Your task to perform on an android device: What's the weather going to be this weekend? Image 0: 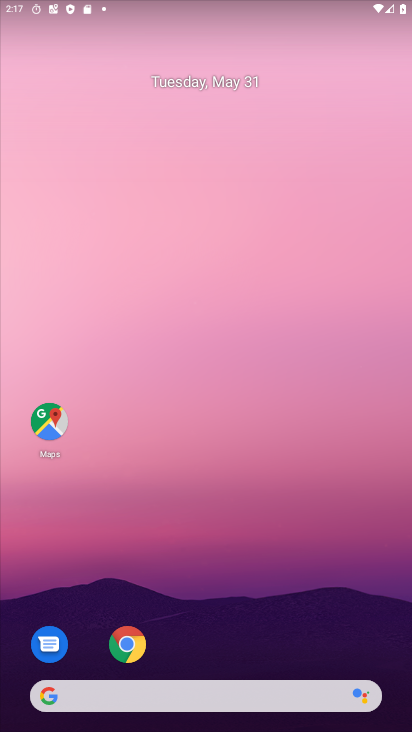
Step 0: drag from (0, 228) to (393, 247)
Your task to perform on an android device: What's the weather going to be this weekend? Image 1: 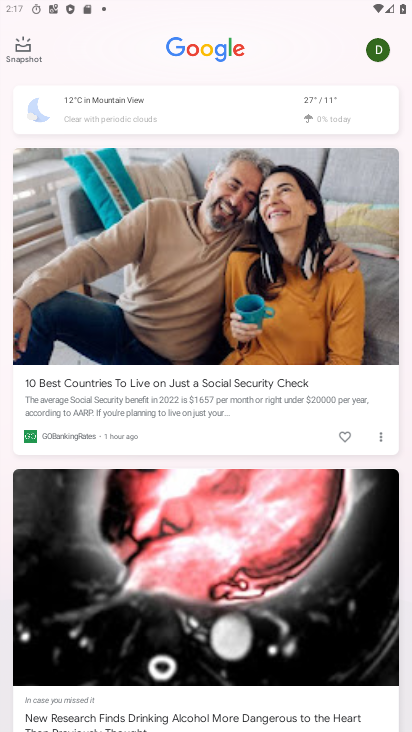
Step 1: click (307, 111)
Your task to perform on an android device: What's the weather going to be this weekend? Image 2: 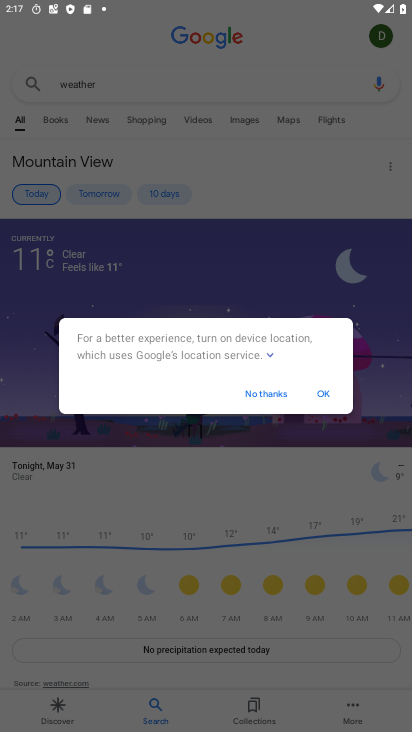
Step 2: click (313, 394)
Your task to perform on an android device: What's the weather going to be this weekend? Image 3: 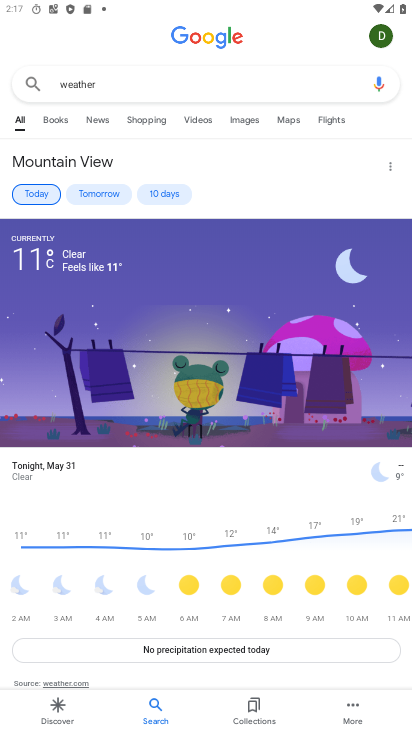
Step 3: click (161, 198)
Your task to perform on an android device: What's the weather going to be this weekend? Image 4: 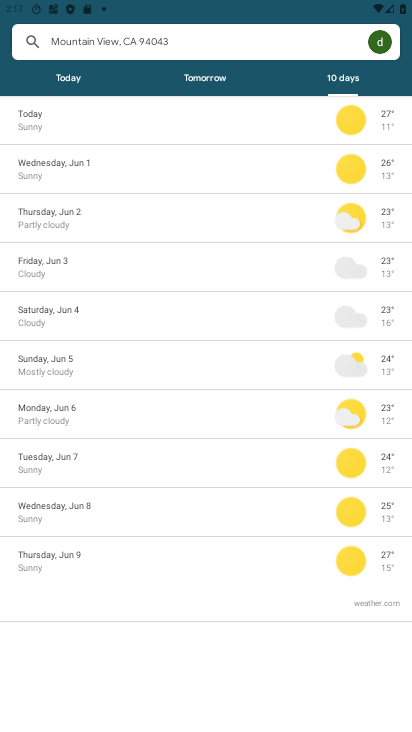
Step 4: task complete